Your task to perform on an android device: open the mobile data screen to see how much data has been used Image 0: 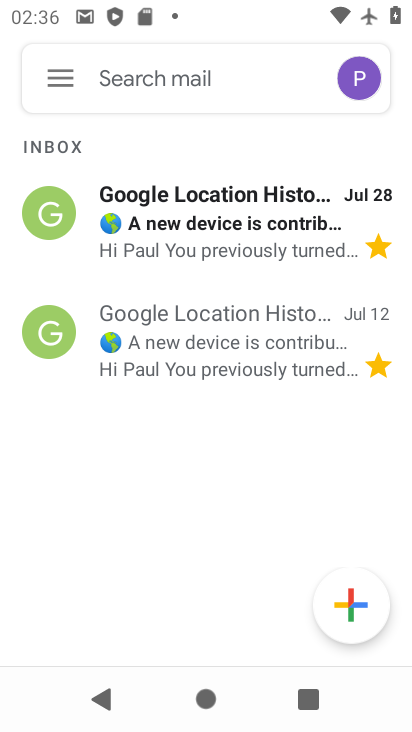
Step 0: press home button
Your task to perform on an android device: open the mobile data screen to see how much data has been used Image 1: 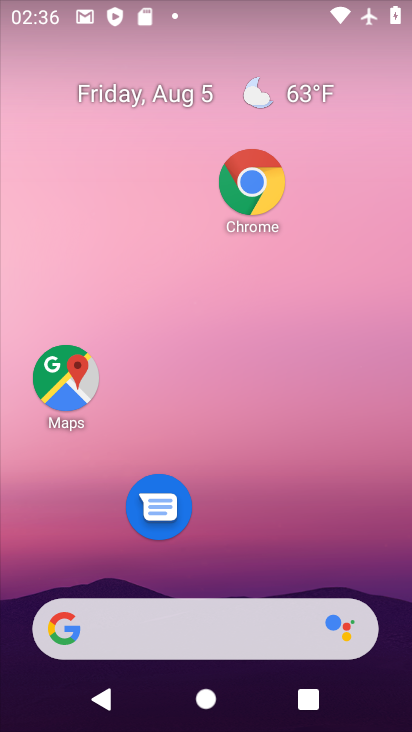
Step 1: drag from (241, 554) to (226, 92)
Your task to perform on an android device: open the mobile data screen to see how much data has been used Image 2: 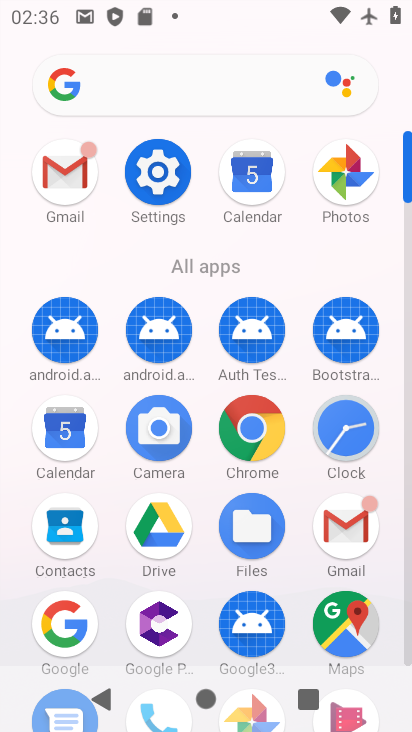
Step 2: click (171, 190)
Your task to perform on an android device: open the mobile data screen to see how much data has been used Image 3: 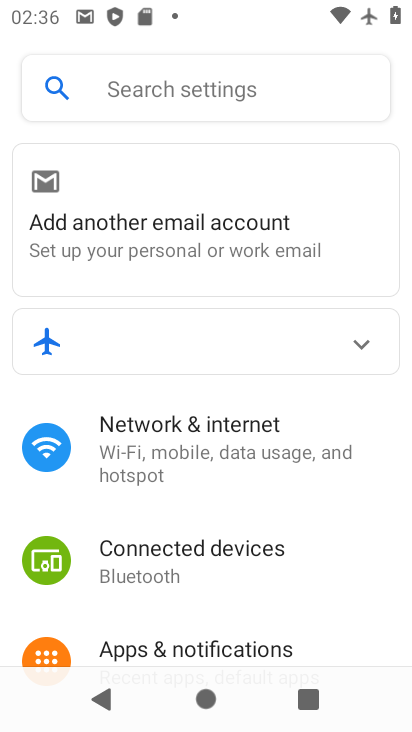
Step 3: click (186, 463)
Your task to perform on an android device: open the mobile data screen to see how much data has been used Image 4: 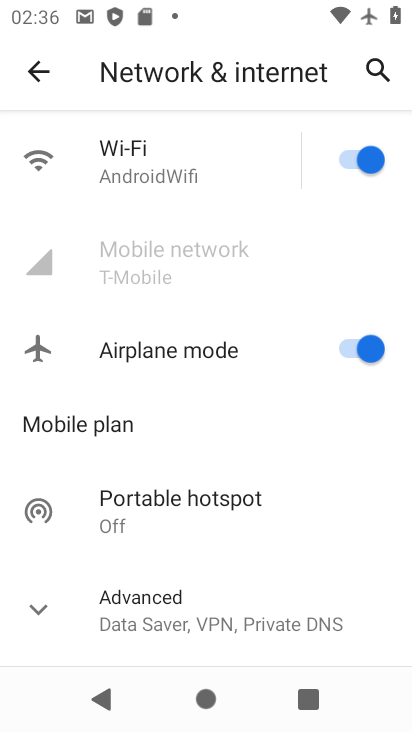
Step 4: click (310, 352)
Your task to perform on an android device: open the mobile data screen to see how much data has been used Image 5: 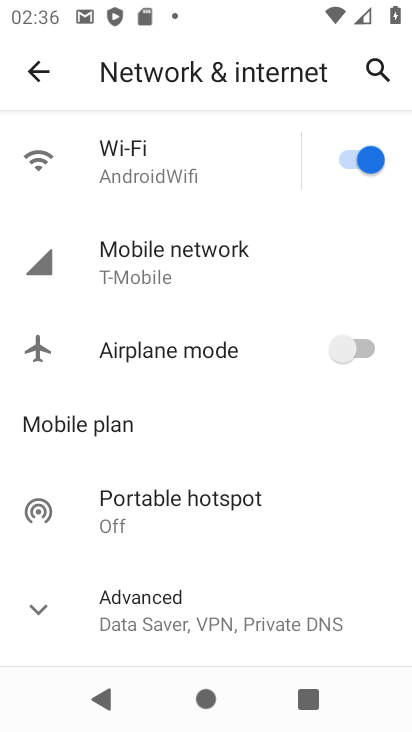
Step 5: click (205, 268)
Your task to perform on an android device: open the mobile data screen to see how much data has been used Image 6: 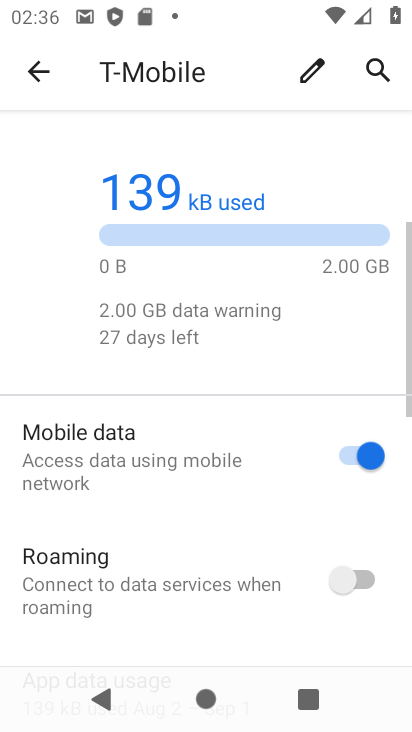
Step 6: drag from (262, 525) to (263, 283)
Your task to perform on an android device: open the mobile data screen to see how much data has been used Image 7: 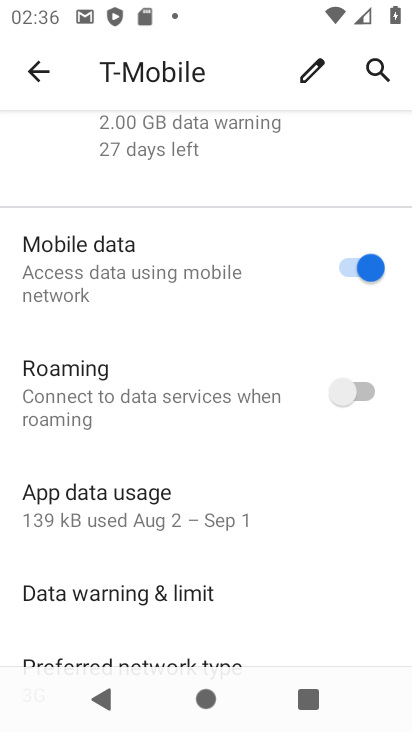
Step 7: click (134, 521)
Your task to perform on an android device: open the mobile data screen to see how much data has been used Image 8: 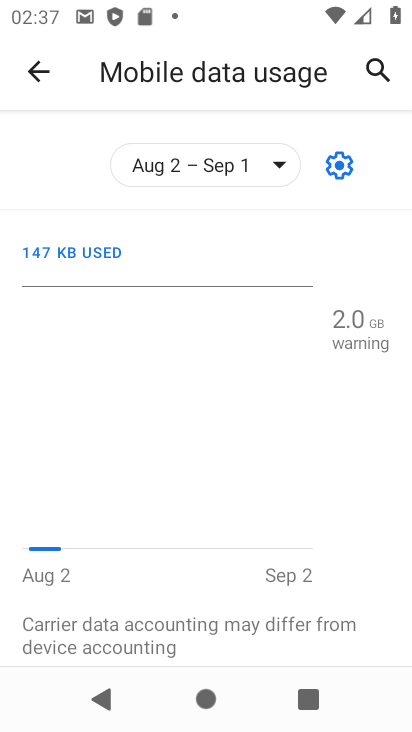
Step 8: task complete